Your task to perform on an android device: What's the weather going to be this weekend? Image 0: 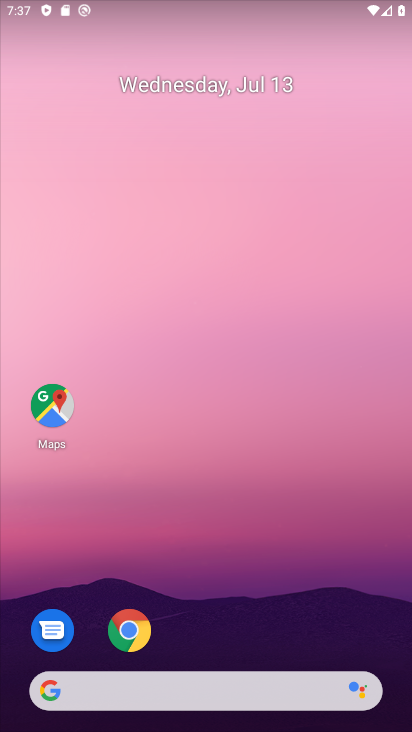
Step 0: drag from (226, 620) to (249, 380)
Your task to perform on an android device: What's the weather going to be this weekend? Image 1: 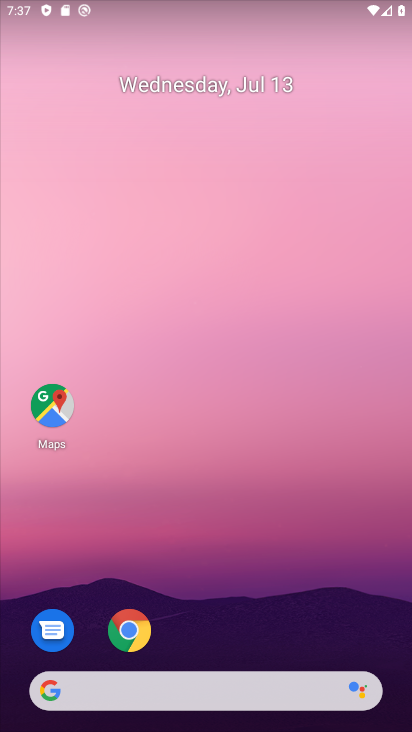
Step 1: drag from (187, 649) to (338, 123)
Your task to perform on an android device: What's the weather going to be this weekend? Image 2: 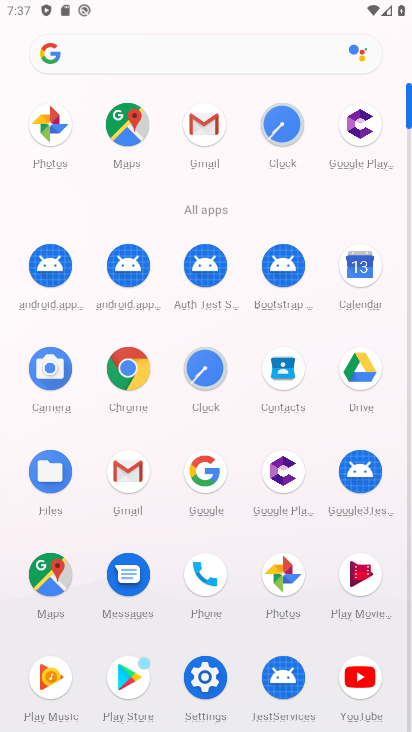
Step 2: click (149, 44)
Your task to perform on an android device: What's the weather going to be this weekend? Image 3: 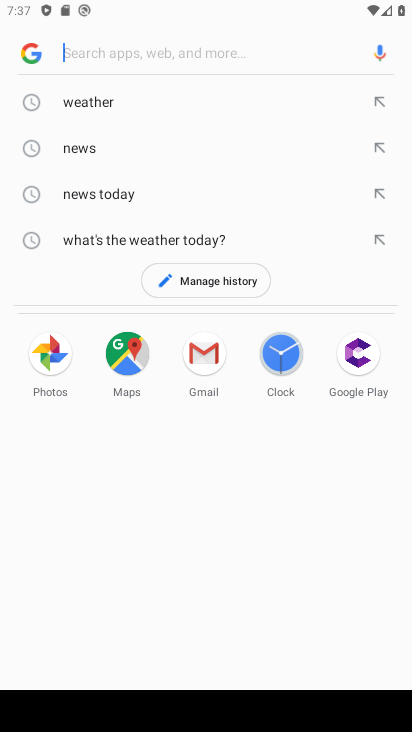
Step 3: type "What's the weather going to be this weekend?"
Your task to perform on an android device: What's the weather going to be this weekend? Image 4: 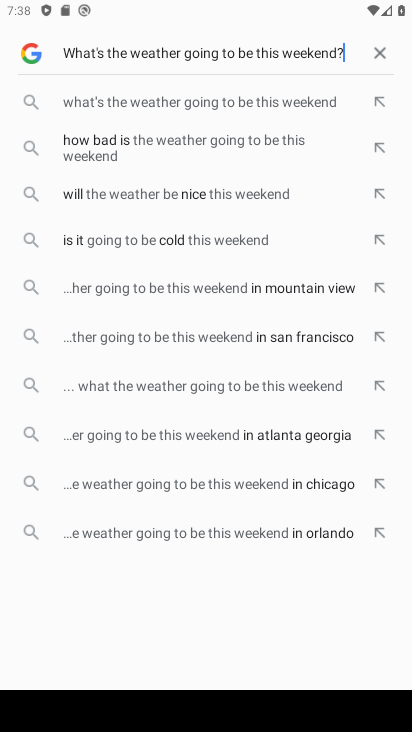
Step 4: type ""
Your task to perform on an android device: What's the weather going to be this weekend? Image 5: 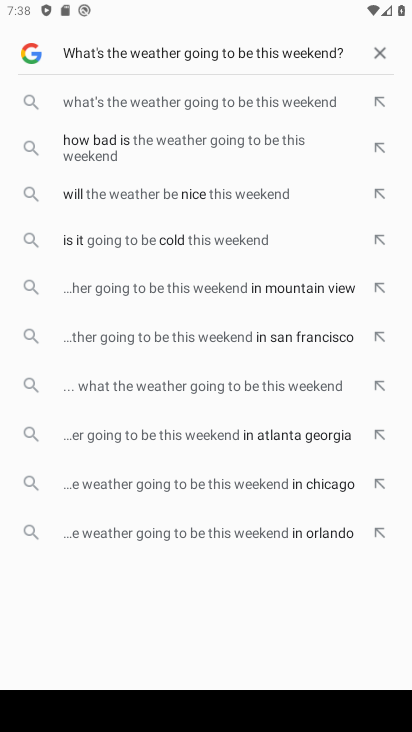
Step 5: click (224, 107)
Your task to perform on an android device: What's the weather going to be this weekend? Image 6: 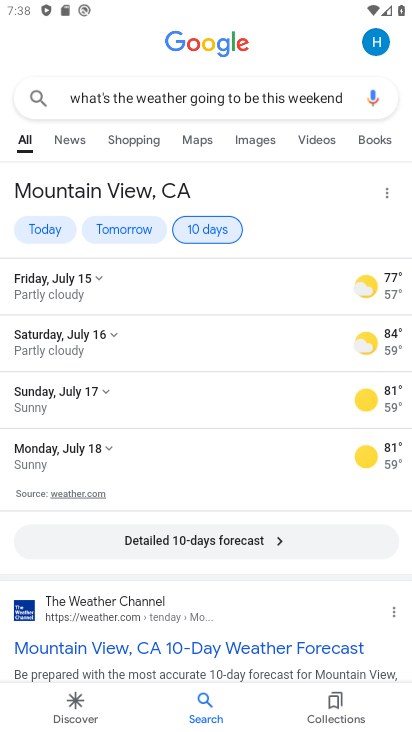
Step 6: task complete